Your task to perform on an android device: turn off javascript in the chrome app Image 0: 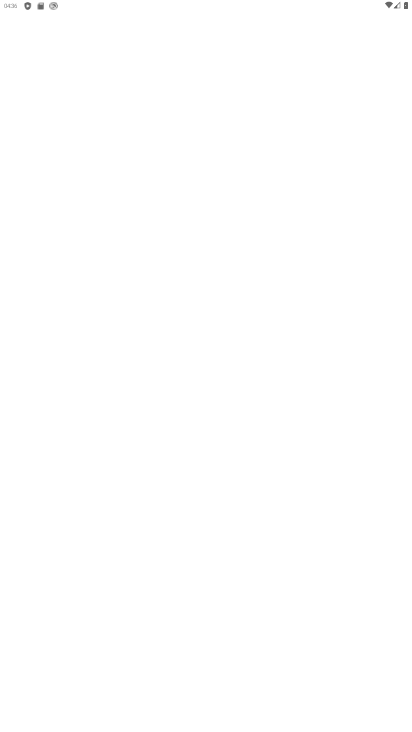
Step 0: press home button
Your task to perform on an android device: turn off javascript in the chrome app Image 1: 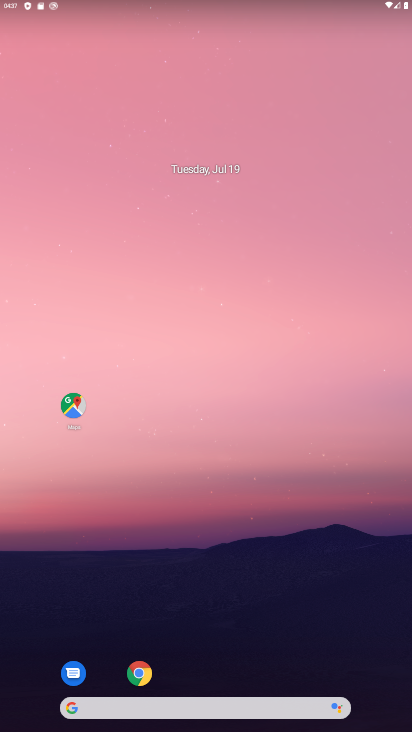
Step 1: drag from (217, 670) to (292, 47)
Your task to perform on an android device: turn off javascript in the chrome app Image 2: 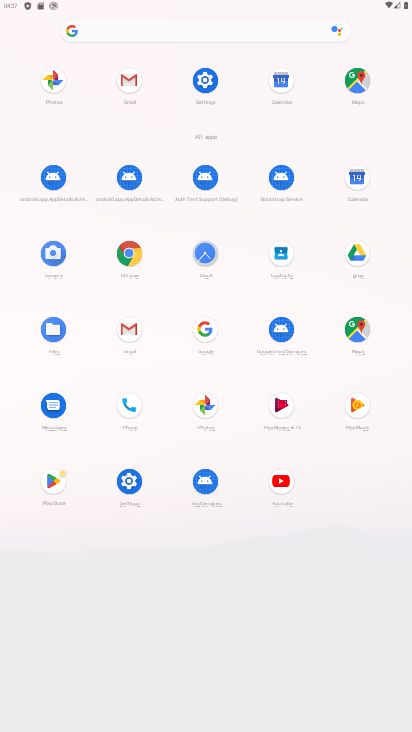
Step 2: click (133, 259)
Your task to perform on an android device: turn off javascript in the chrome app Image 3: 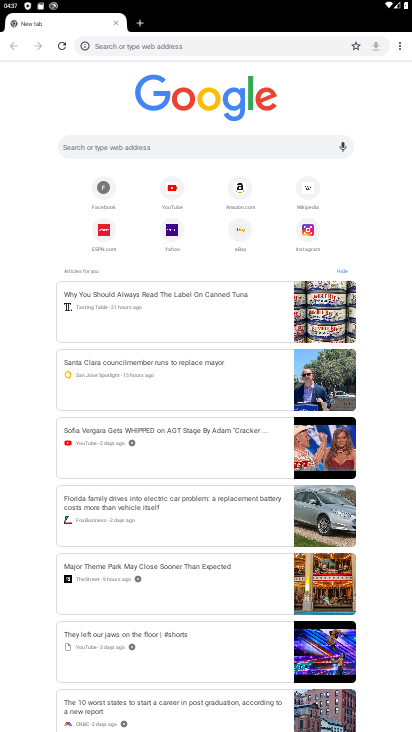
Step 3: click (394, 36)
Your task to perform on an android device: turn off javascript in the chrome app Image 4: 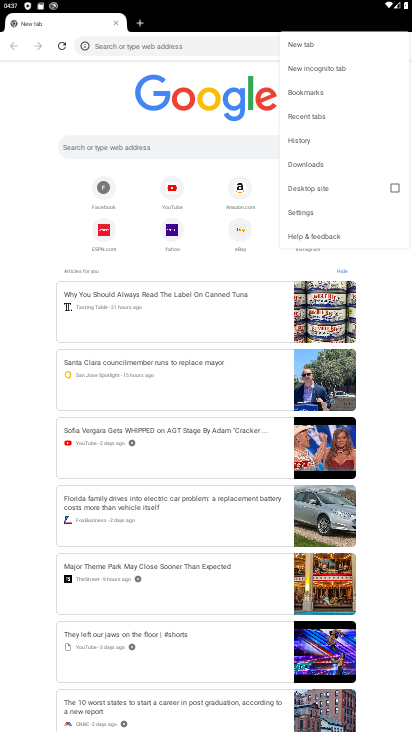
Step 4: click (298, 215)
Your task to perform on an android device: turn off javascript in the chrome app Image 5: 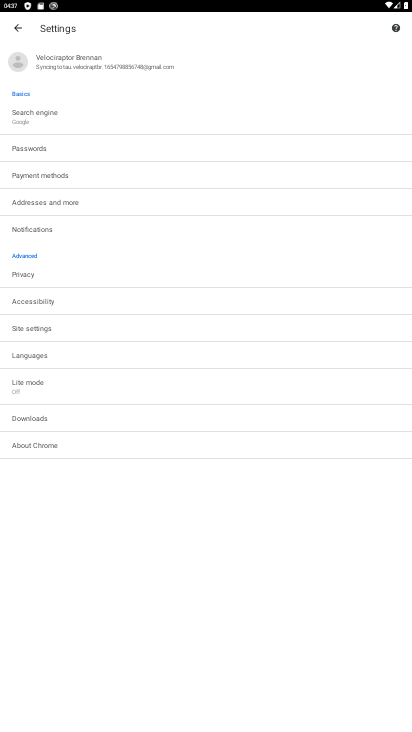
Step 5: click (41, 328)
Your task to perform on an android device: turn off javascript in the chrome app Image 6: 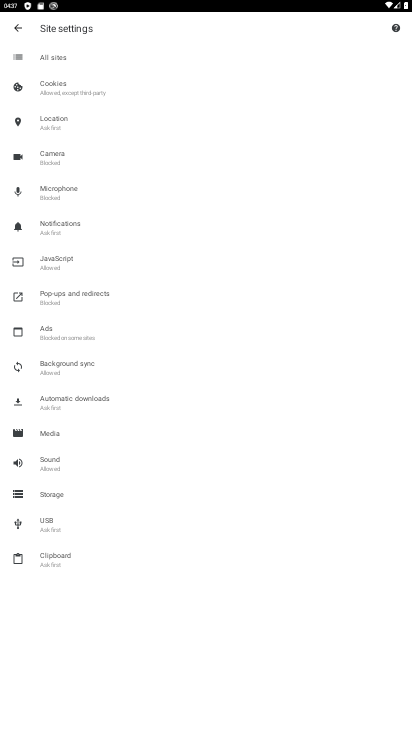
Step 6: click (76, 266)
Your task to perform on an android device: turn off javascript in the chrome app Image 7: 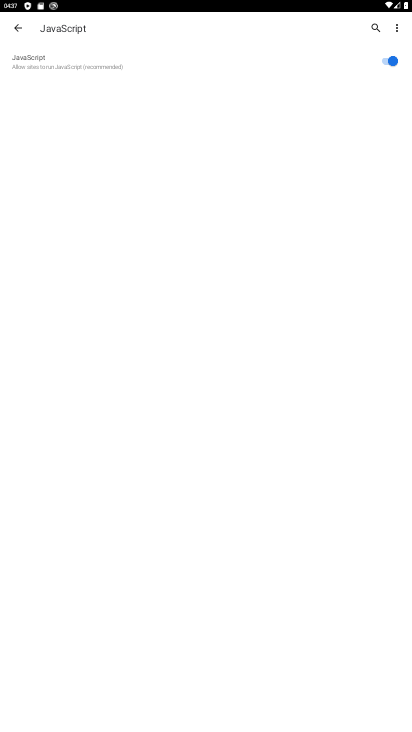
Step 7: click (370, 59)
Your task to perform on an android device: turn off javascript in the chrome app Image 8: 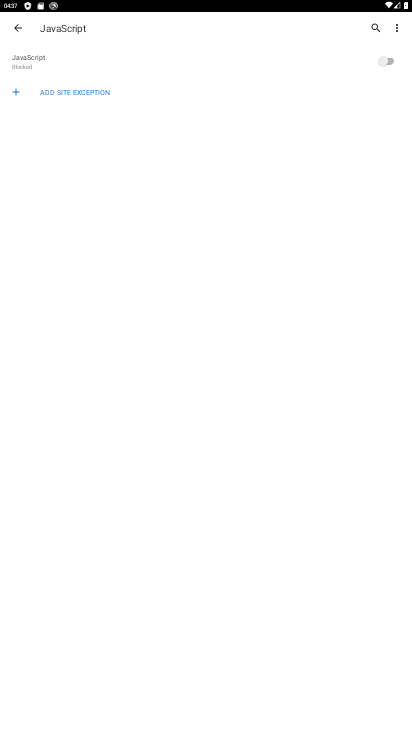
Step 8: task complete